Your task to perform on an android device: turn smart compose on in the gmail app Image 0: 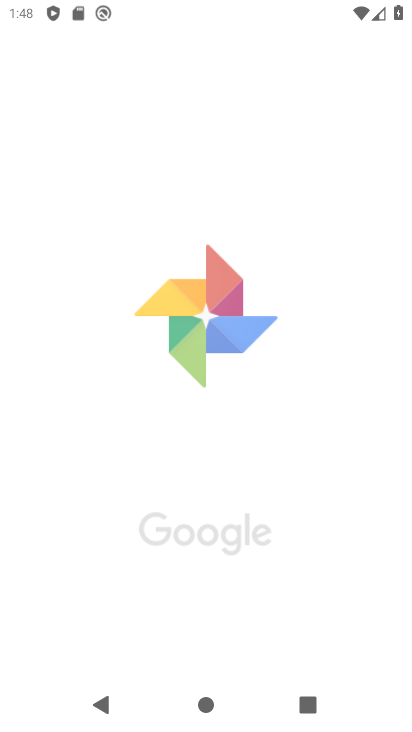
Step 0: drag from (186, 618) to (330, 0)
Your task to perform on an android device: turn smart compose on in the gmail app Image 1: 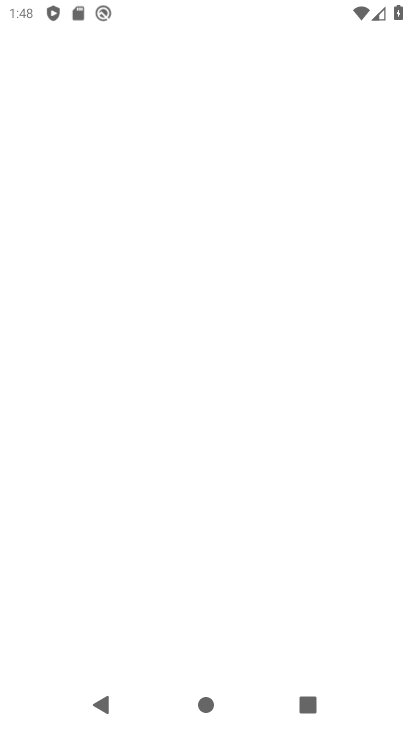
Step 1: press home button
Your task to perform on an android device: turn smart compose on in the gmail app Image 2: 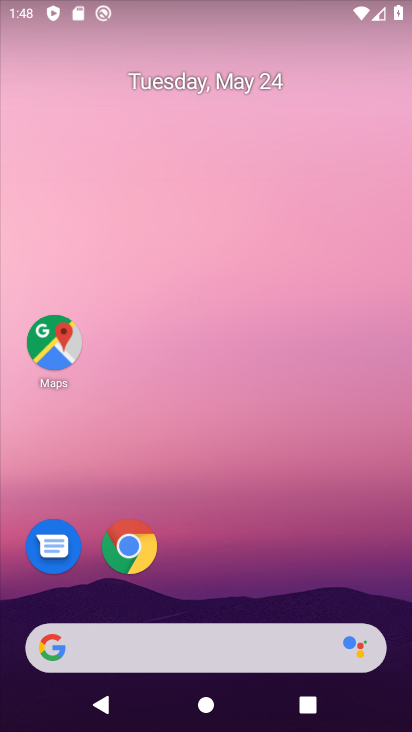
Step 2: drag from (176, 530) to (295, 18)
Your task to perform on an android device: turn smart compose on in the gmail app Image 3: 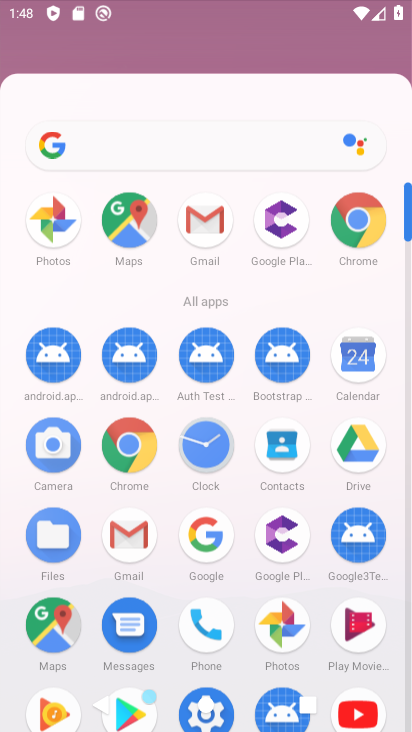
Step 3: click (116, 539)
Your task to perform on an android device: turn smart compose on in the gmail app Image 4: 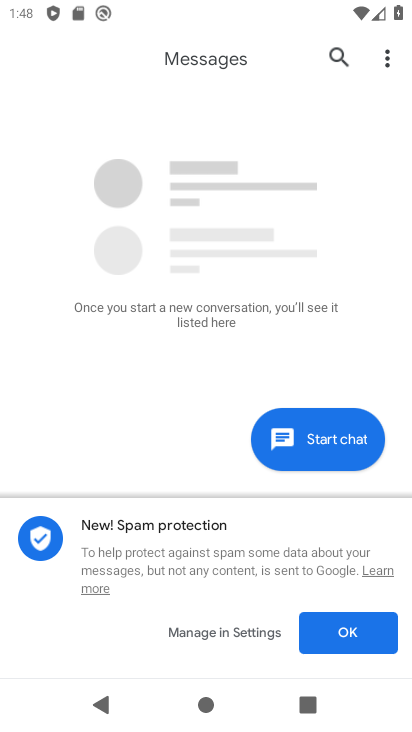
Step 4: press home button
Your task to perform on an android device: turn smart compose on in the gmail app Image 5: 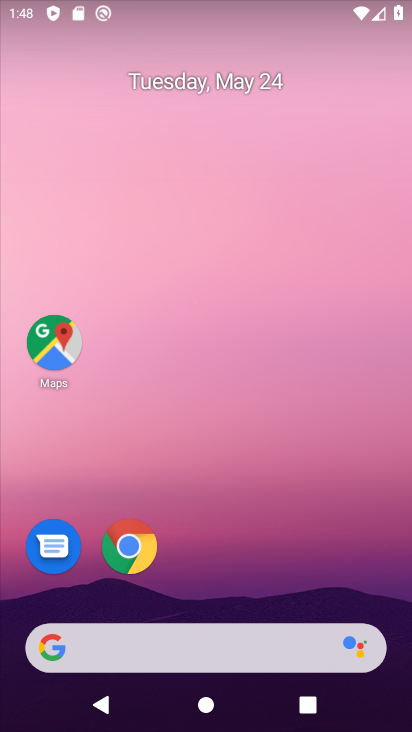
Step 5: drag from (181, 619) to (301, 1)
Your task to perform on an android device: turn smart compose on in the gmail app Image 6: 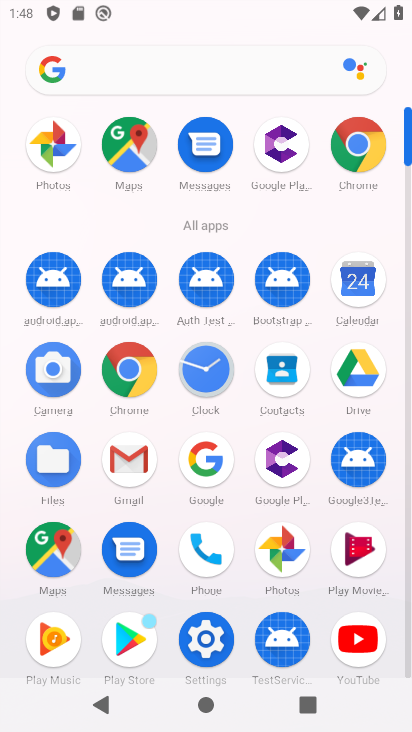
Step 6: click (121, 453)
Your task to perform on an android device: turn smart compose on in the gmail app Image 7: 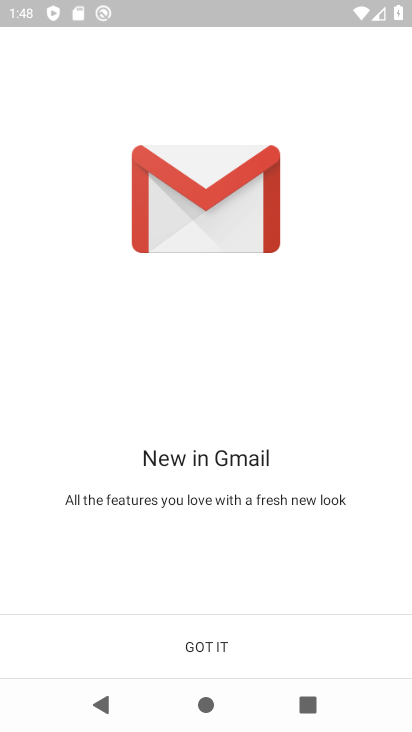
Step 7: click (229, 654)
Your task to perform on an android device: turn smart compose on in the gmail app Image 8: 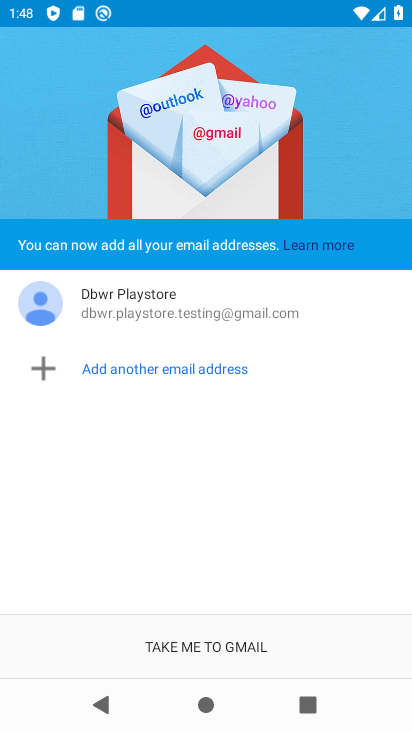
Step 8: click (220, 654)
Your task to perform on an android device: turn smart compose on in the gmail app Image 9: 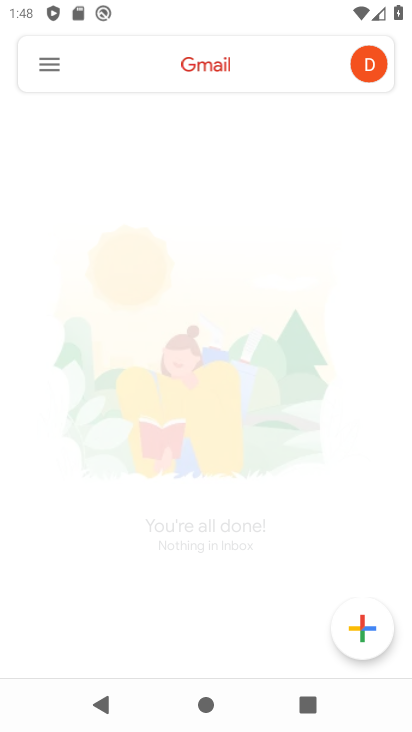
Step 9: click (33, 71)
Your task to perform on an android device: turn smart compose on in the gmail app Image 10: 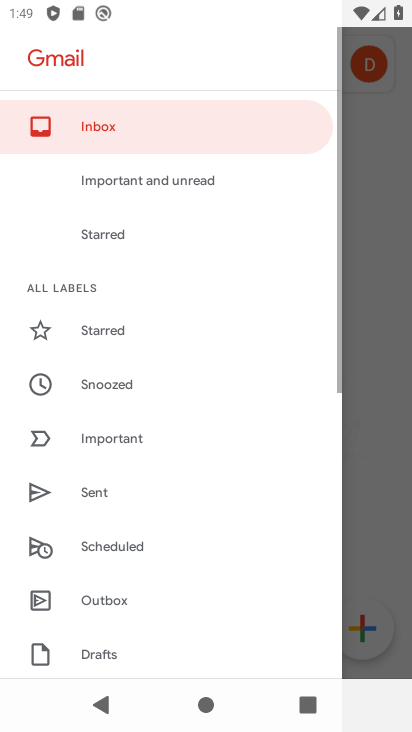
Step 10: drag from (166, 382) to (213, 141)
Your task to perform on an android device: turn smart compose on in the gmail app Image 11: 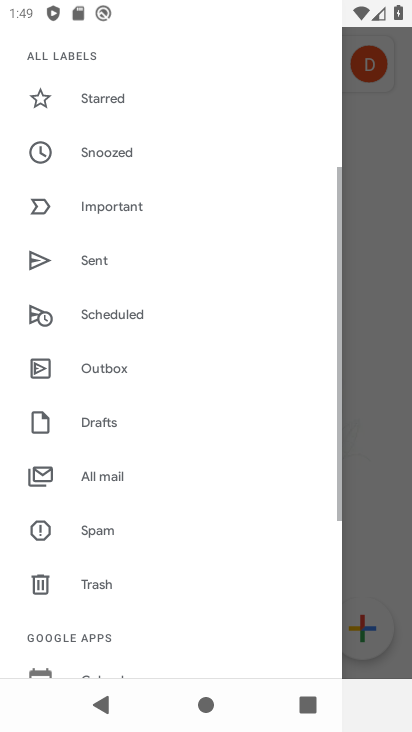
Step 11: drag from (134, 624) to (218, 108)
Your task to perform on an android device: turn smart compose on in the gmail app Image 12: 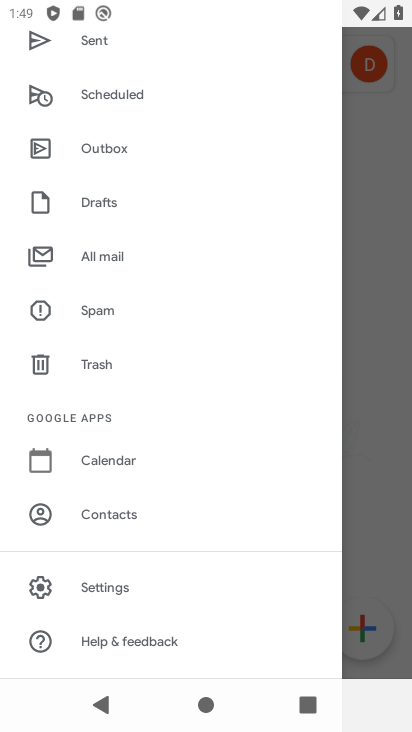
Step 12: click (138, 594)
Your task to perform on an android device: turn smart compose on in the gmail app Image 13: 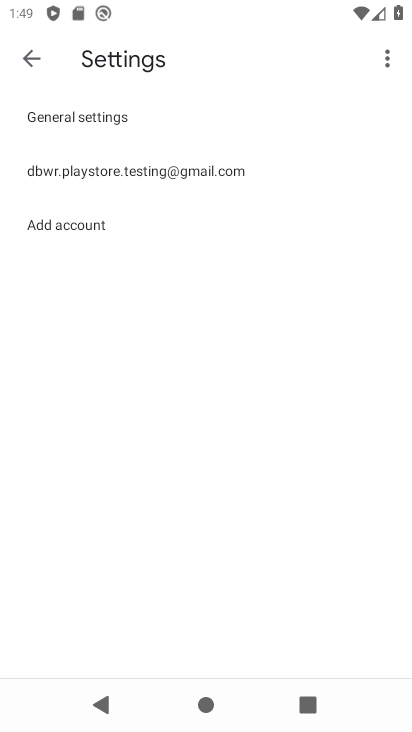
Step 13: click (197, 182)
Your task to perform on an android device: turn smart compose on in the gmail app Image 14: 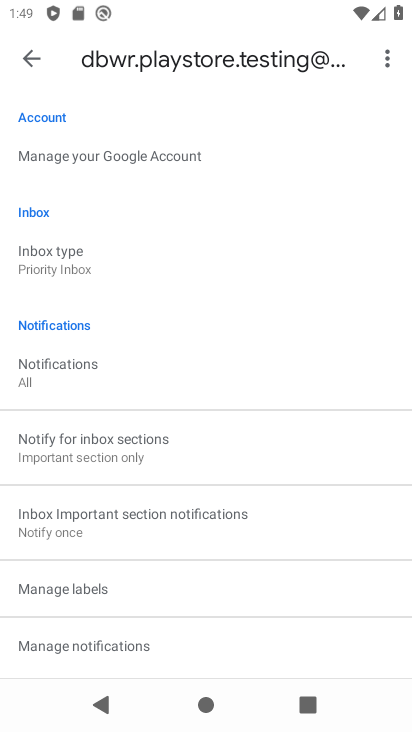
Step 14: task complete